Your task to perform on an android device: Open my contact list Image 0: 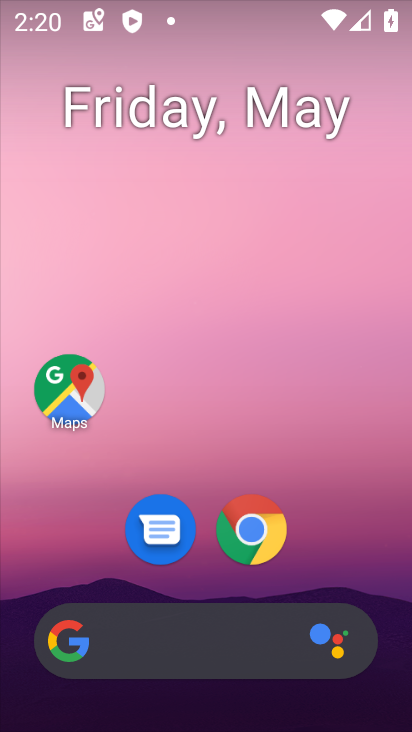
Step 0: drag from (358, 561) to (311, 128)
Your task to perform on an android device: Open my contact list Image 1: 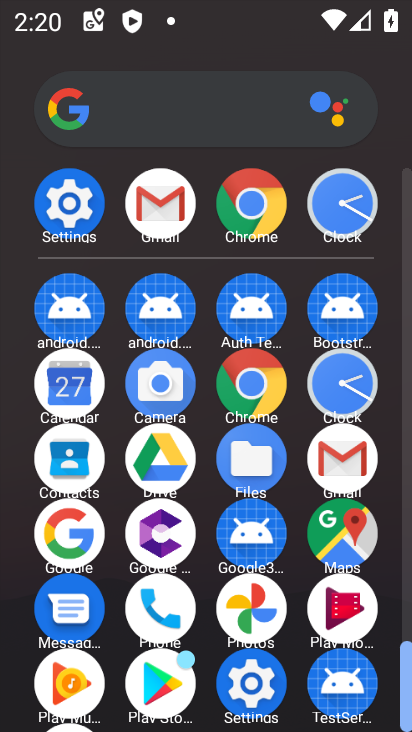
Step 1: click (90, 454)
Your task to perform on an android device: Open my contact list Image 2: 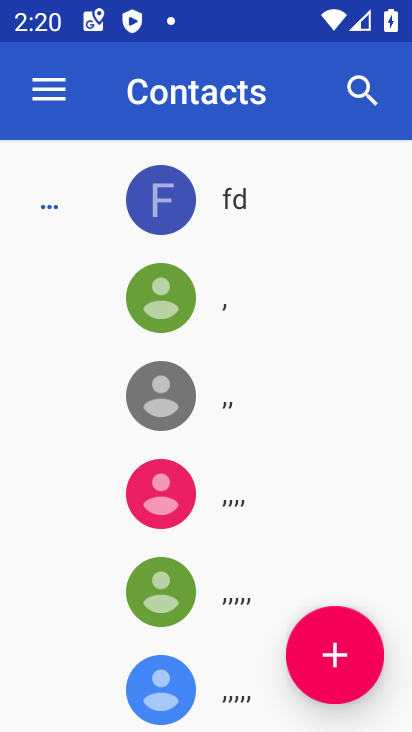
Step 2: task complete